Your task to perform on an android device: check battery use Image 0: 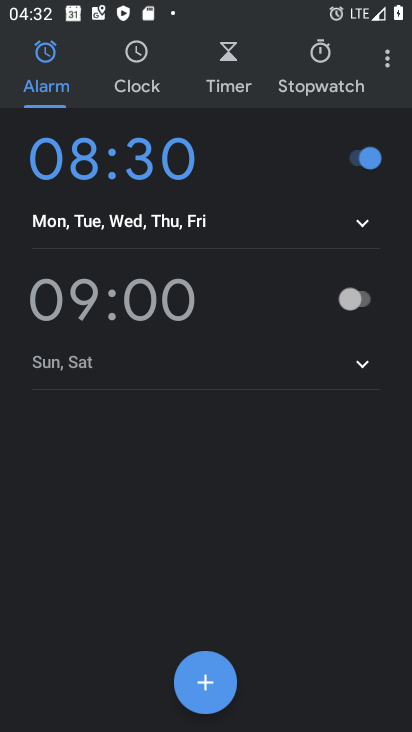
Step 0: press home button
Your task to perform on an android device: check battery use Image 1: 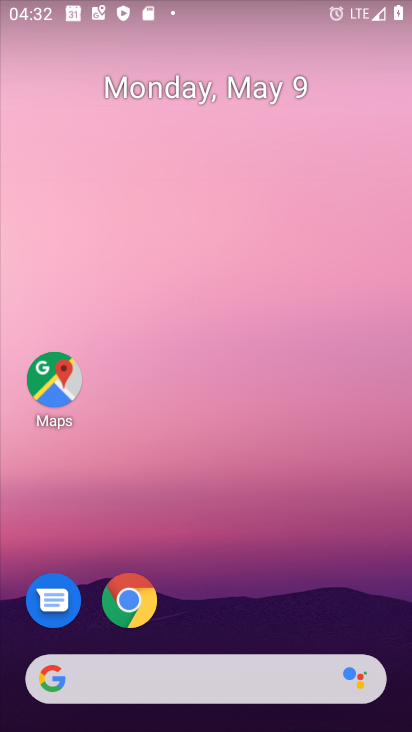
Step 1: drag from (258, 666) to (173, 69)
Your task to perform on an android device: check battery use Image 2: 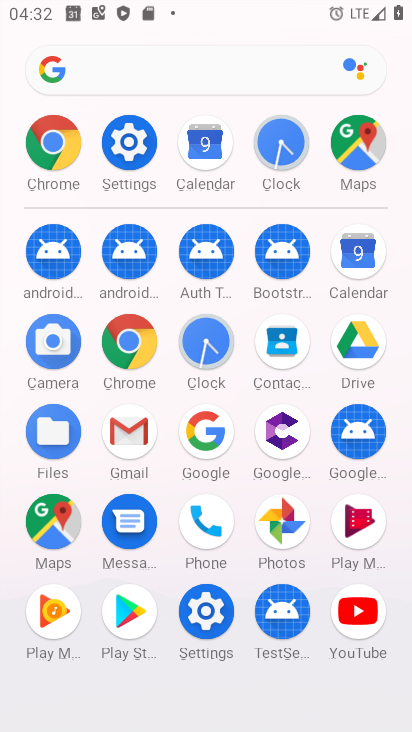
Step 2: click (129, 149)
Your task to perform on an android device: check battery use Image 3: 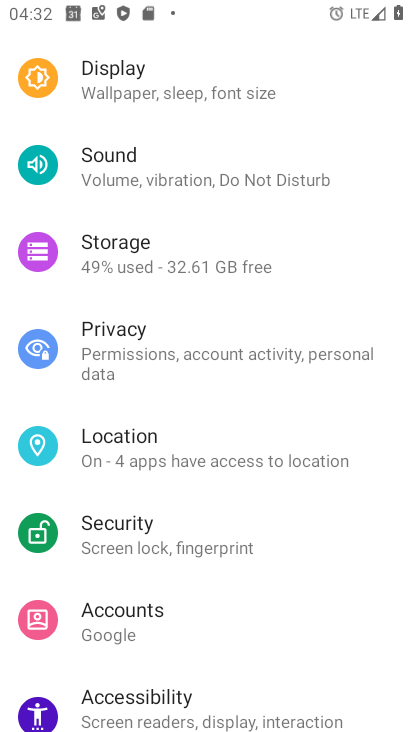
Step 3: drag from (173, 170) to (232, 727)
Your task to perform on an android device: check battery use Image 4: 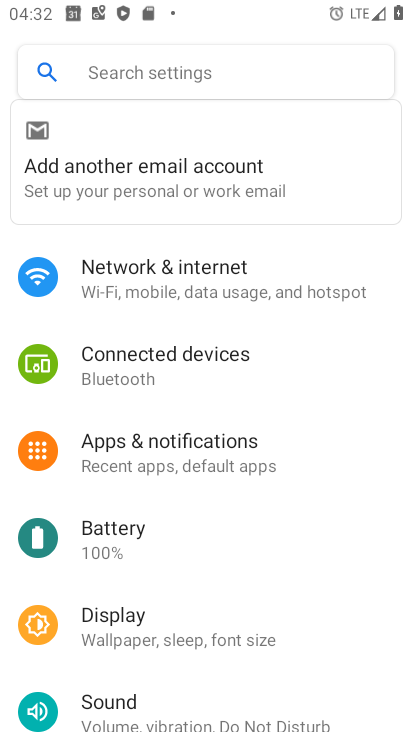
Step 4: click (139, 532)
Your task to perform on an android device: check battery use Image 5: 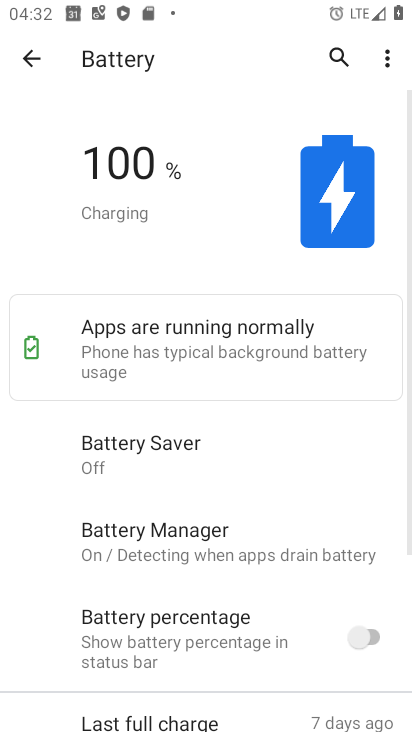
Step 5: task complete